Your task to perform on an android device: toggle javascript in the chrome app Image 0: 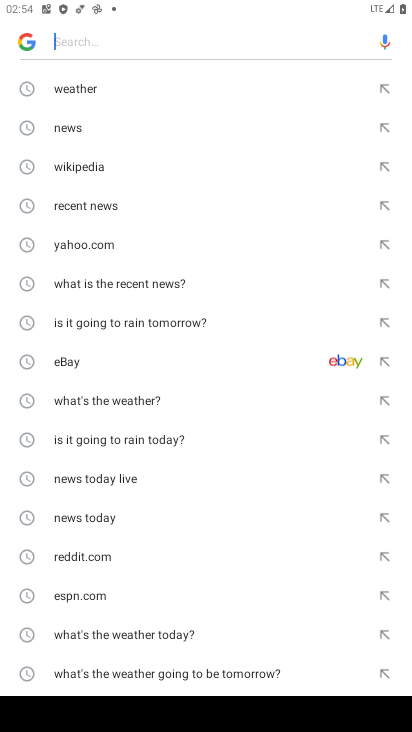
Step 0: press home button
Your task to perform on an android device: toggle javascript in the chrome app Image 1: 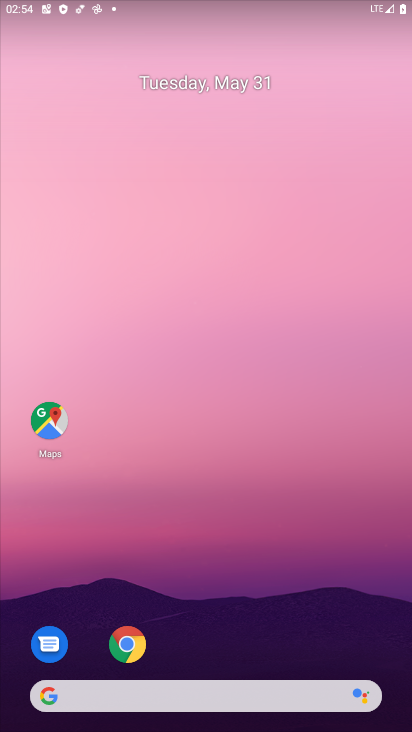
Step 1: drag from (286, 582) to (230, 154)
Your task to perform on an android device: toggle javascript in the chrome app Image 2: 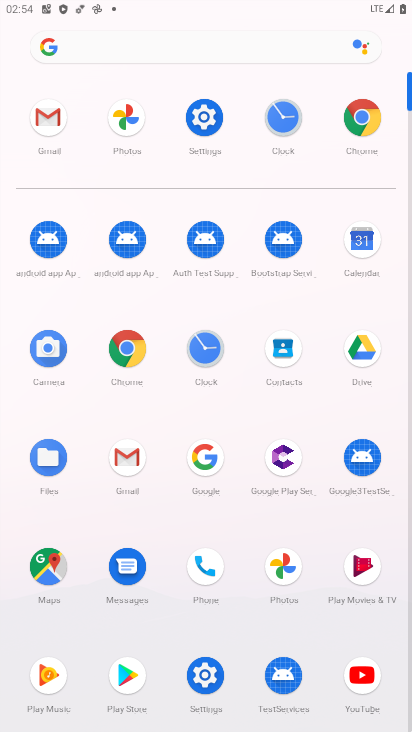
Step 2: click (121, 348)
Your task to perform on an android device: toggle javascript in the chrome app Image 3: 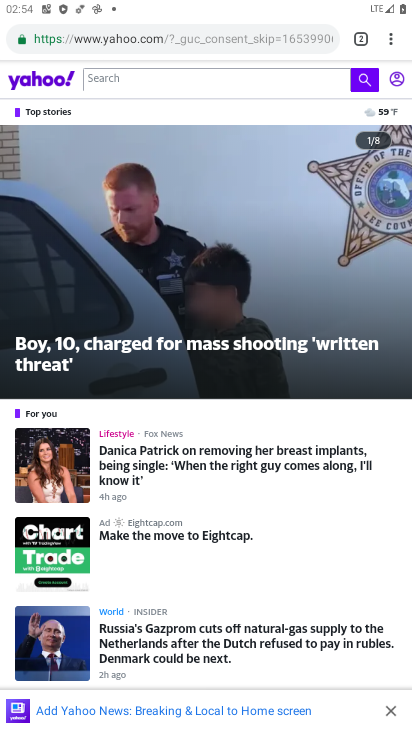
Step 3: drag from (393, 42) to (290, 481)
Your task to perform on an android device: toggle javascript in the chrome app Image 4: 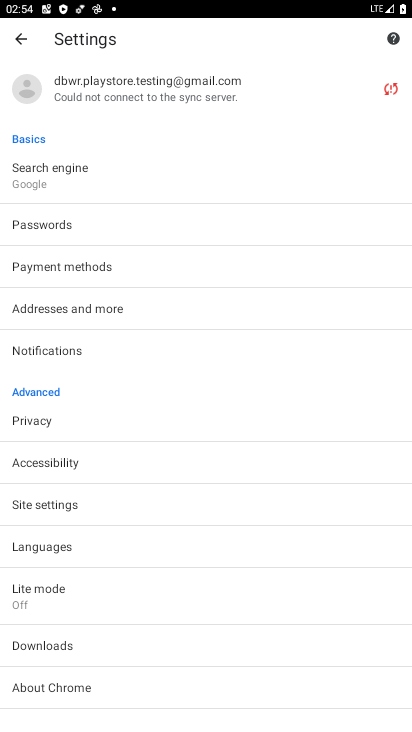
Step 4: click (60, 508)
Your task to perform on an android device: toggle javascript in the chrome app Image 5: 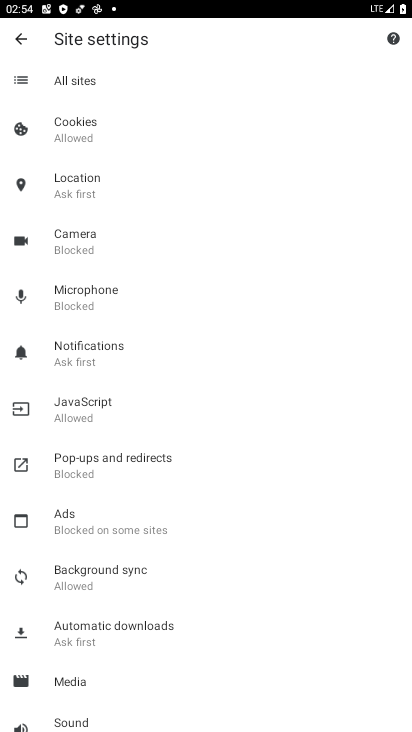
Step 5: click (92, 413)
Your task to perform on an android device: toggle javascript in the chrome app Image 6: 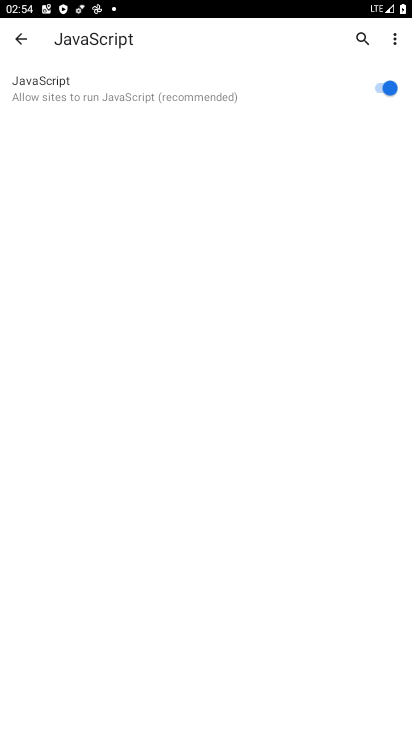
Step 6: click (385, 86)
Your task to perform on an android device: toggle javascript in the chrome app Image 7: 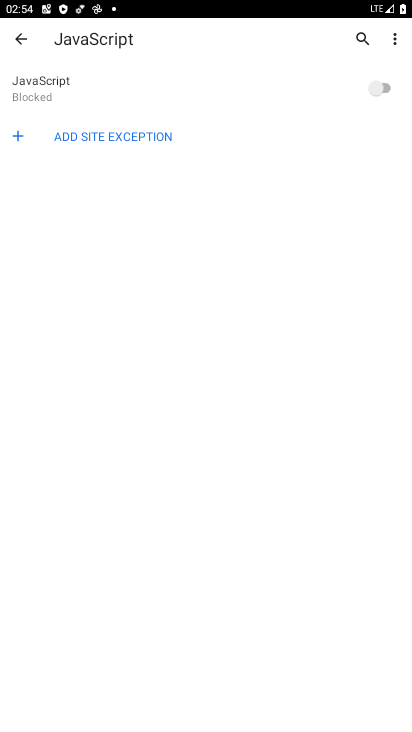
Step 7: task complete